Your task to perform on an android device: Open Google Maps Image 0: 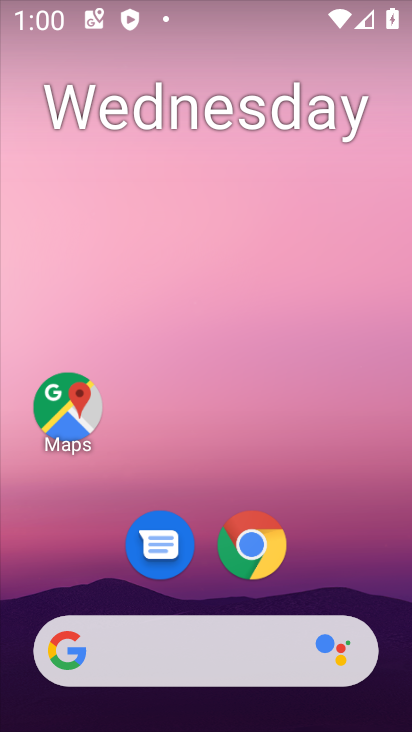
Step 0: click (74, 417)
Your task to perform on an android device: Open Google Maps Image 1: 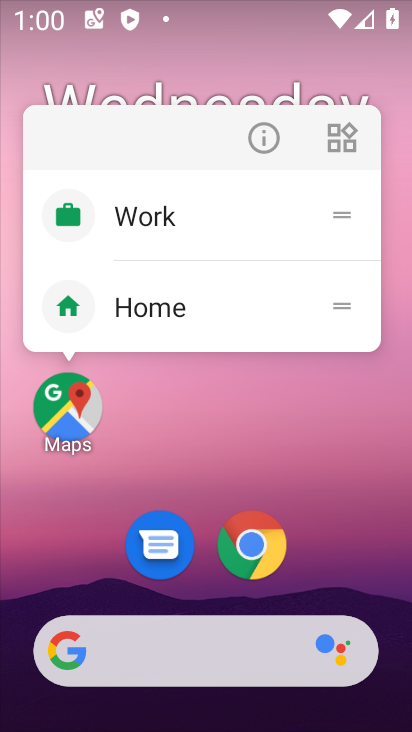
Step 1: click (270, 152)
Your task to perform on an android device: Open Google Maps Image 2: 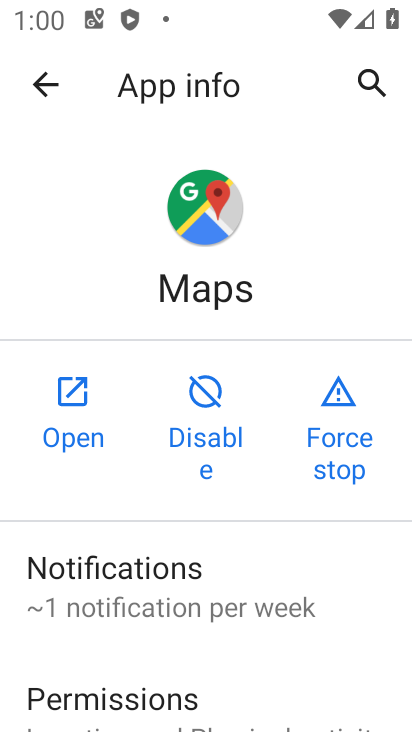
Step 2: click (53, 430)
Your task to perform on an android device: Open Google Maps Image 3: 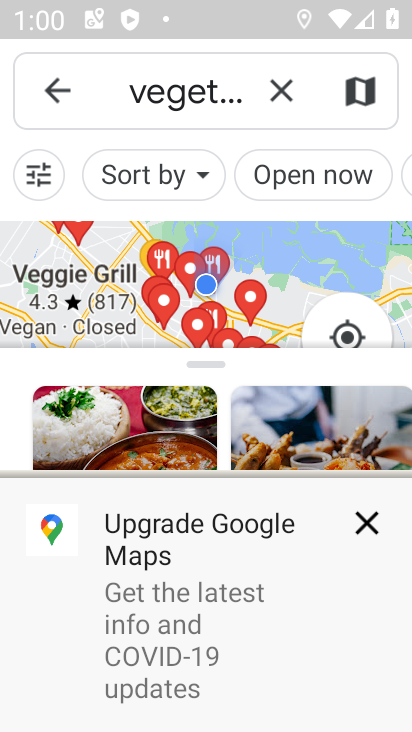
Step 3: task complete